Your task to perform on an android device: search for starred emails in the gmail app Image 0: 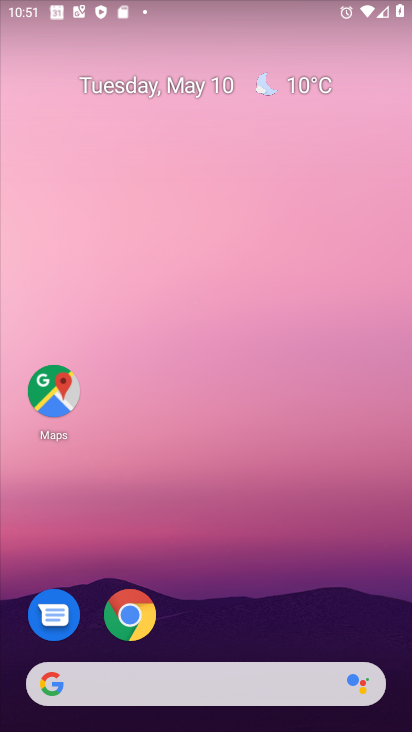
Step 0: click (259, 151)
Your task to perform on an android device: search for starred emails in the gmail app Image 1: 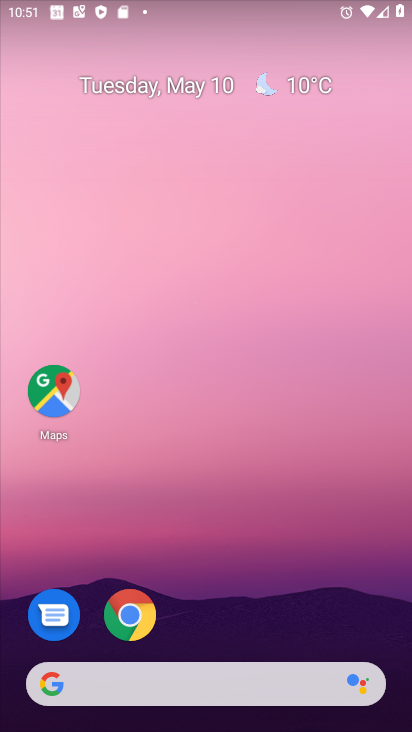
Step 1: drag from (217, 645) to (222, 136)
Your task to perform on an android device: search for starred emails in the gmail app Image 2: 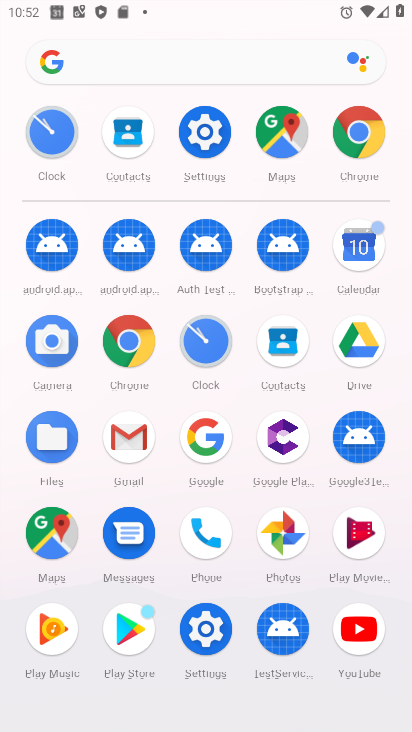
Step 2: click (126, 436)
Your task to perform on an android device: search for starred emails in the gmail app Image 3: 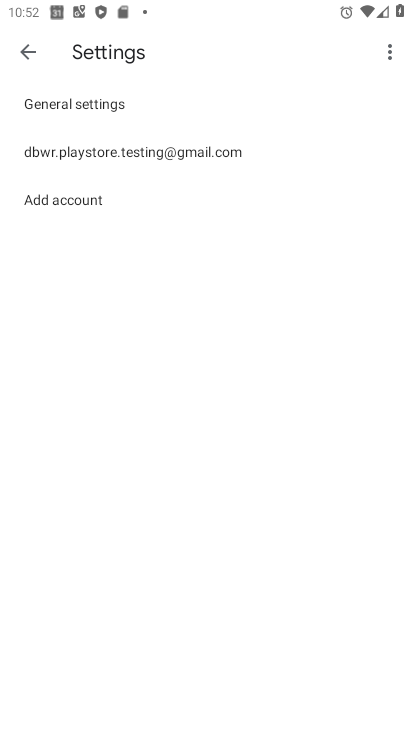
Step 3: click (17, 46)
Your task to perform on an android device: search for starred emails in the gmail app Image 4: 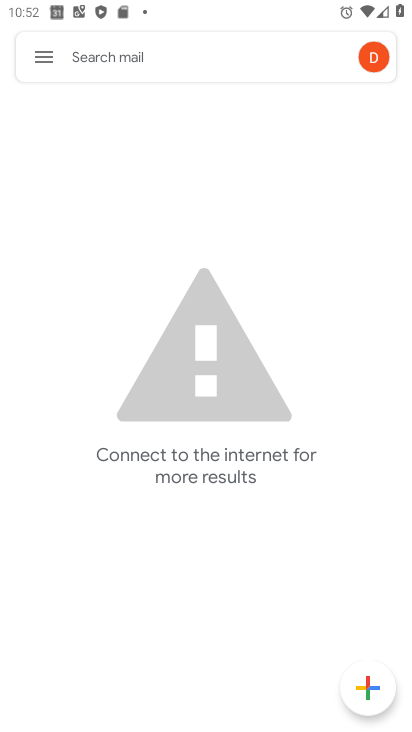
Step 4: click (38, 58)
Your task to perform on an android device: search for starred emails in the gmail app Image 5: 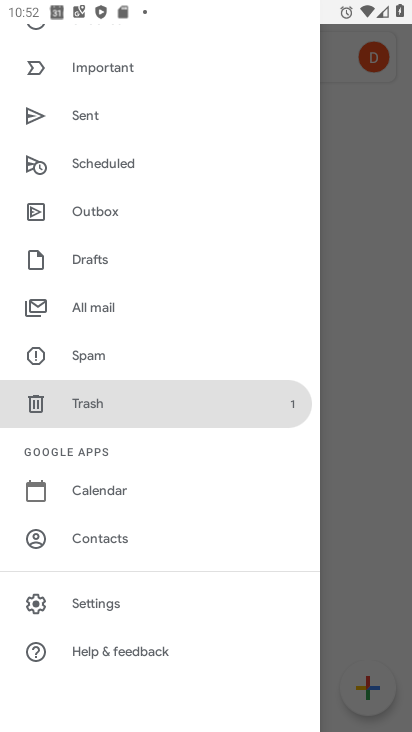
Step 5: drag from (94, 94) to (105, 500)
Your task to perform on an android device: search for starred emails in the gmail app Image 6: 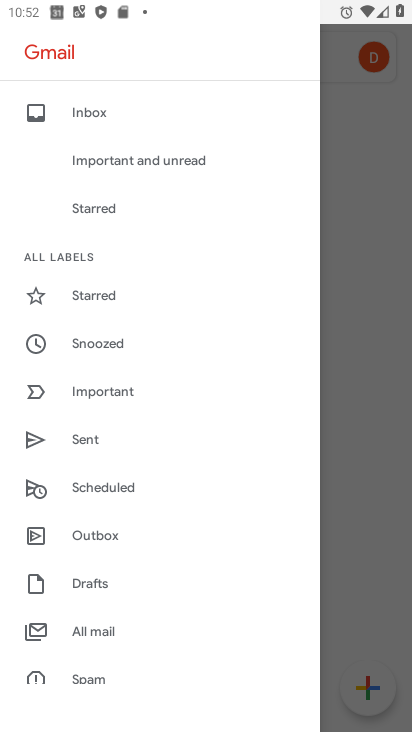
Step 6: click (103, 292)
Your task to perform on an android device: search for starred emails in the gmail app Image 7: 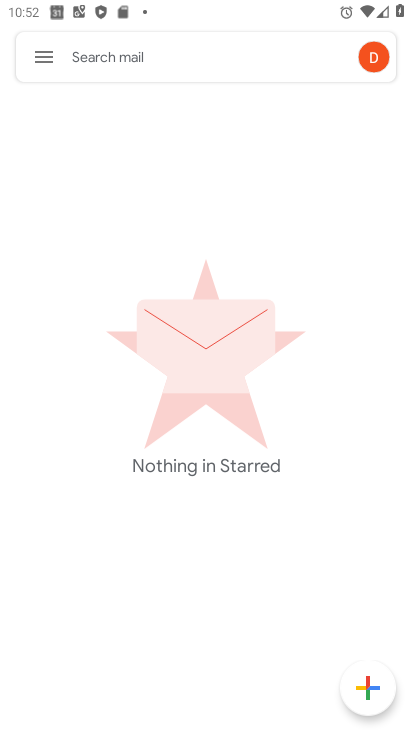
Step 7: task complete